Your task to perform on an android device: turn off sleep mode Image 0: 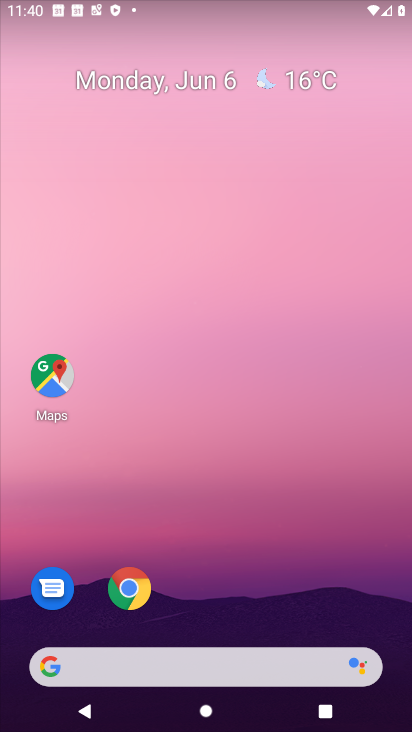
Step 0: drag from (250, 624) to (159, 19)
Your task to perform on an android device: turn off sleep mode Image 1: 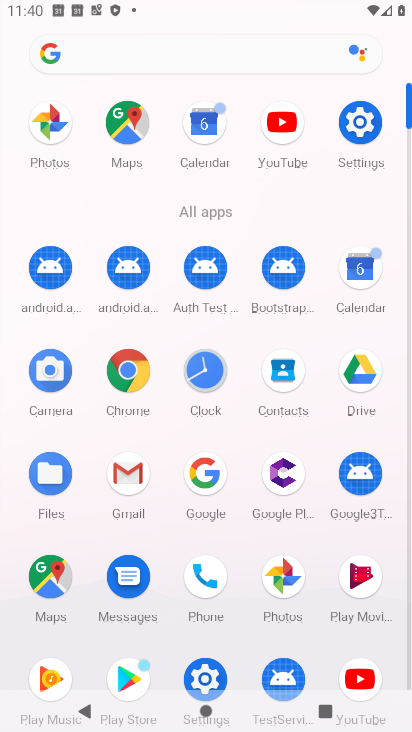
Step 1: click (353, 124)
Your task to perform on an android device: turn off sleep mode Image 2: 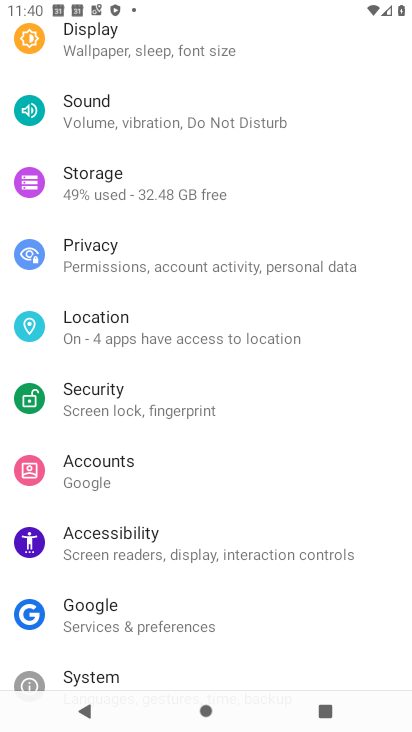
Step 2: drag from (265, 187) to (185, 725)
Your task to perform on an android device: turn off sleep mode Image 3: 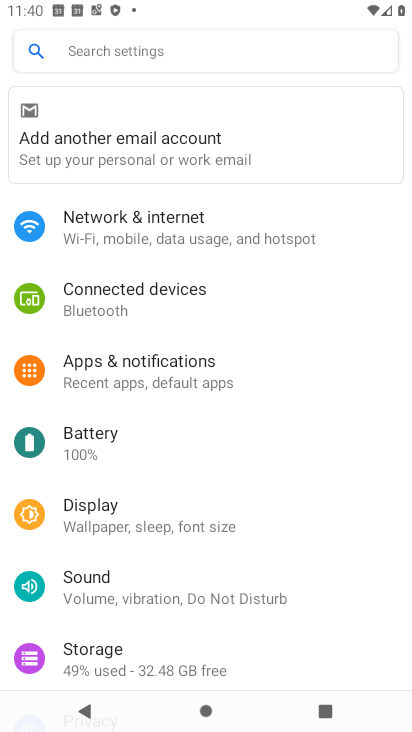
Step 3: click (149, 523)
Your task to perform on an android device: turn off sleep mode Image 4: 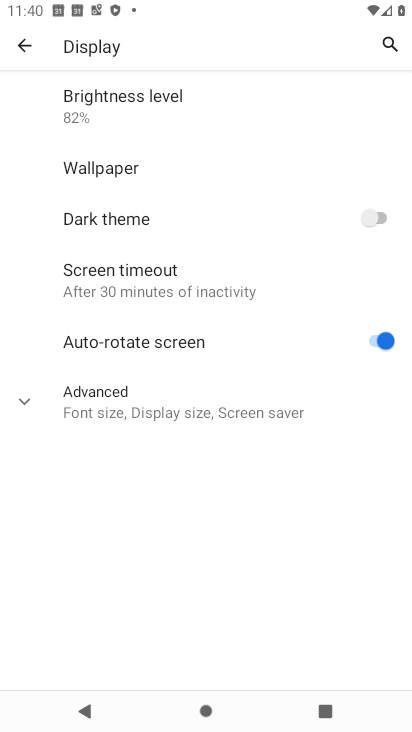
Step 4: click (132, 415)
Your task to perform on an android device: turn off sleep mode Image 5: 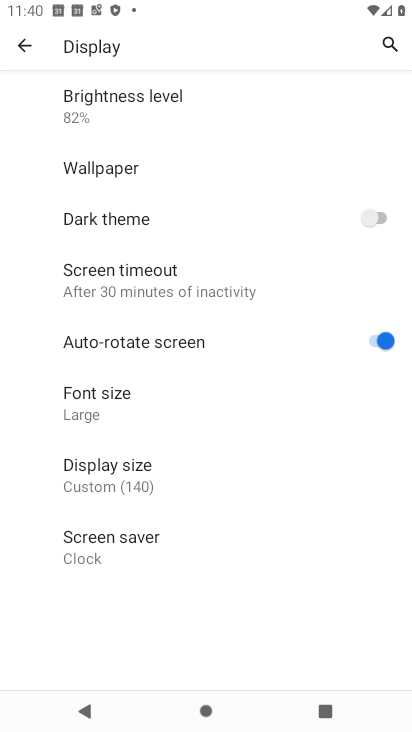
Step 5: task complete